Your task to perform on an android device: turn on translation in the chrome app Image 0: 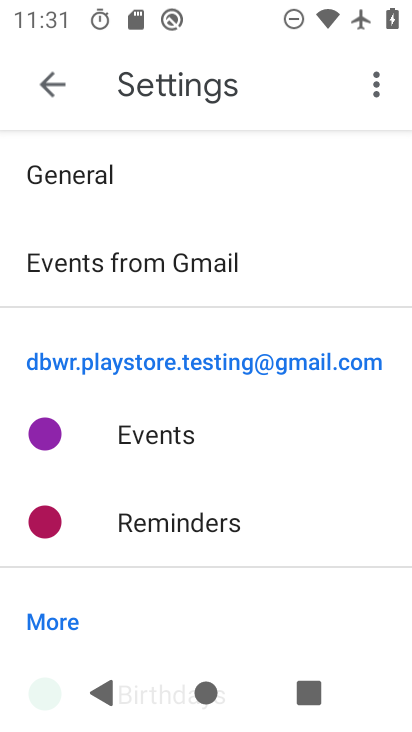
Step 0: press home button
Your task to perform on an android device: turn on translation in the chrome app Image 1: 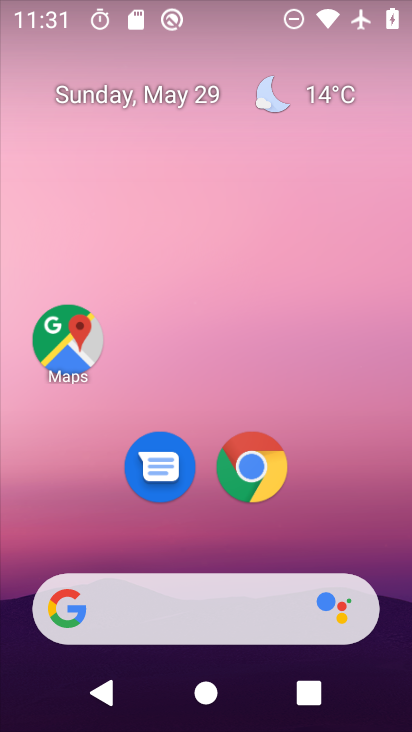
Step 1: click (270, 474)
Your task to perform on an android device: turn on translation in the chrome app Image 2: 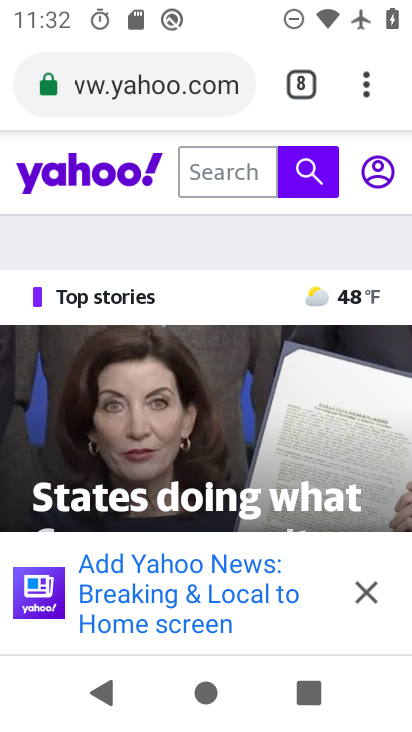
Step 2: click (360, 95)
Your task to perform on an android device: turn on translation in the chrome app Image 3: 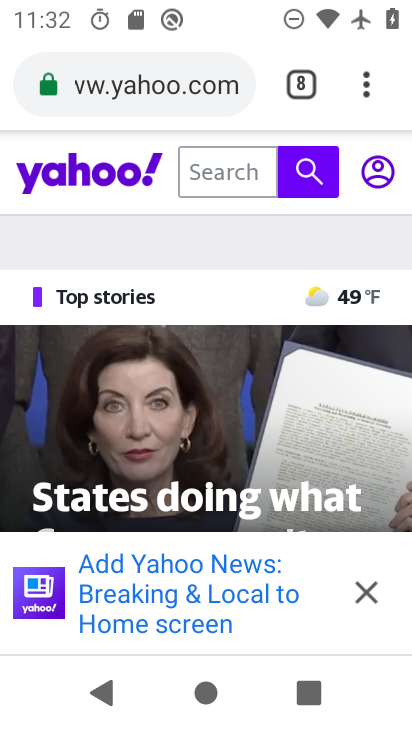
Step 3: drag from (364, 83) to (151, 523)
Your task to perform on an android device: turn on translation in the chrome app Image 4: 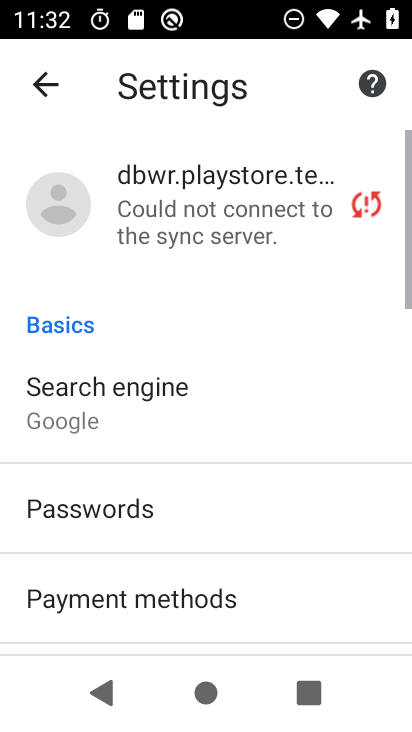
Step 4: drag from (199, 548) to (243, 325)
Your task to perform on an android device: turn on translation in the chrome app Image 5: 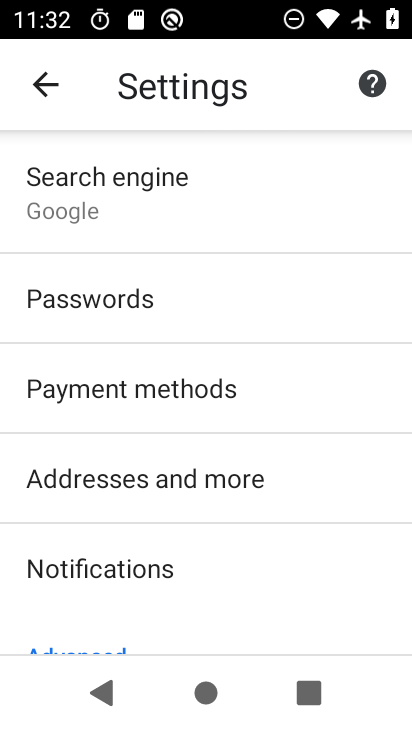
Step 5: drag from (252, 509) to (262, 298)
Your task to perform on an android device: turn on translation in the chrome app Image 6: 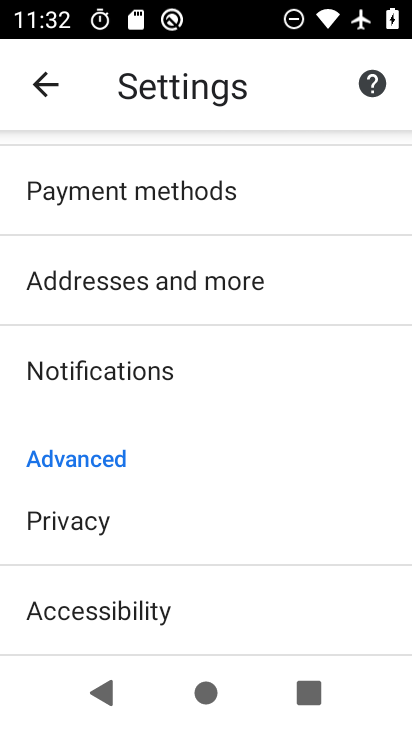
Step 6: drag from (239, 562) to (250, 371)
Your task to perform on an android device: turn on translation in the chrome app Image 7: 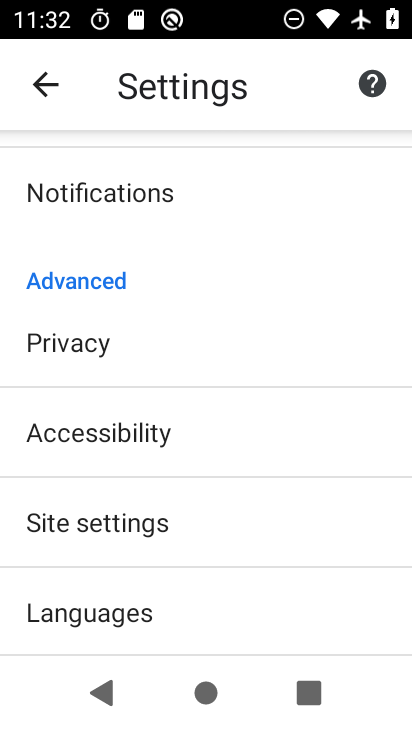
Step 7: drag from (210, 567) to (222, 391)
Your task to perform on an android device: turn on translation in the chrome app Image 8: 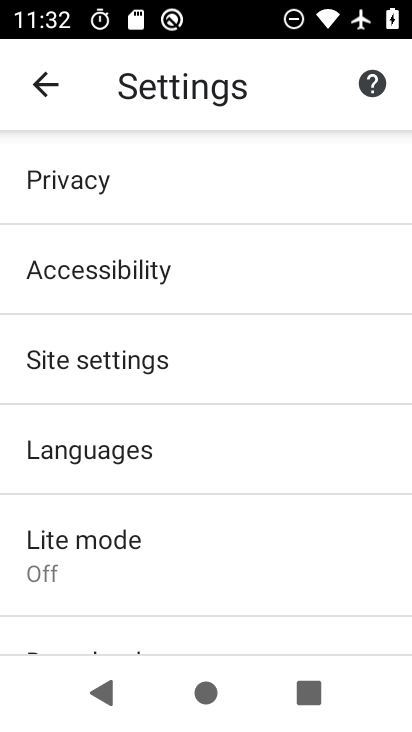
Step 8: click (197, 442)
Your task to perform on an android device: turn on translation in the chrome app Image 9: 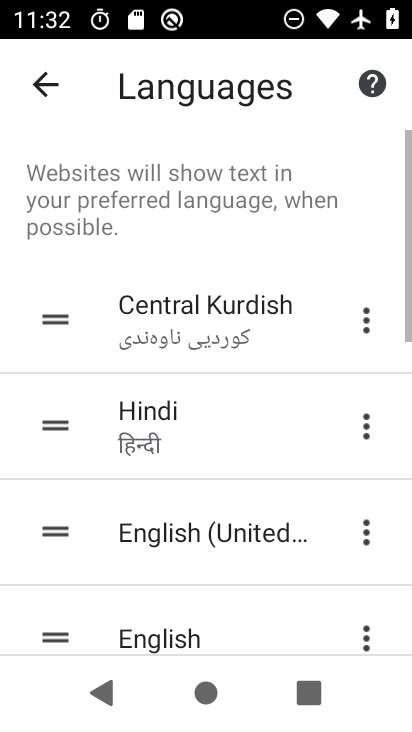
Step 9: drag from (235, 574) to (243, 282)
Your task to perform on an android device: turn on translation in the chrome app Image 10: 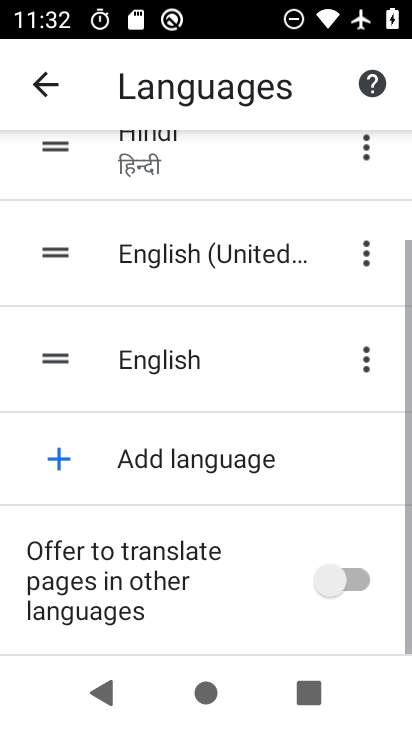
Step 10: drag from (249, 588) to (253, 383)
Your task to perform on an android device: turn on translation in the chrome app Image 11: 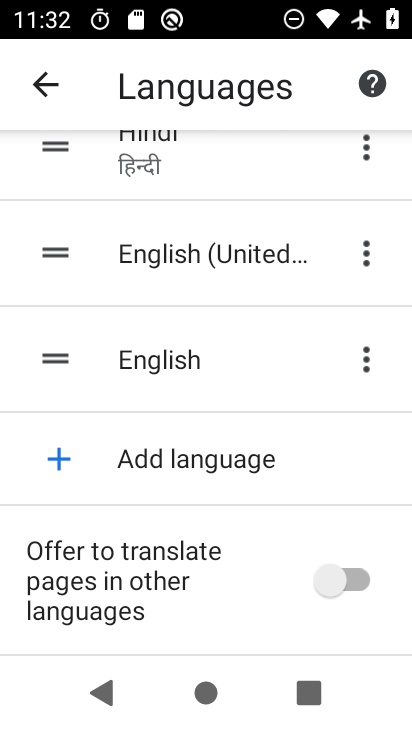
Step 11: click (349, 575)
Your task to perform on an android device: turn on translation in the chrome app Image 12: 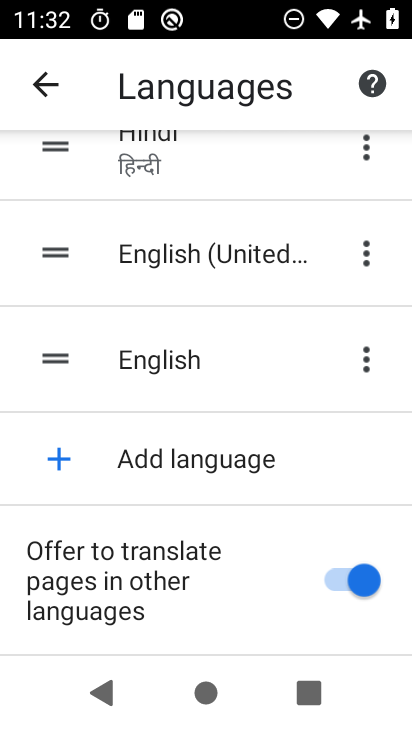
Step 12: task complete